Your task to perform on an android device: What is the recent news? Image 0: 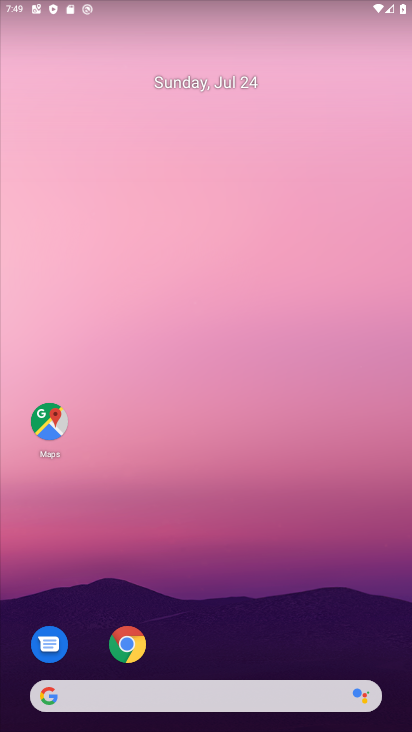
Step 0: drag from (8, 255) to (411, 504)
Your task to perform on an android device: What is the recent news? Image 1: 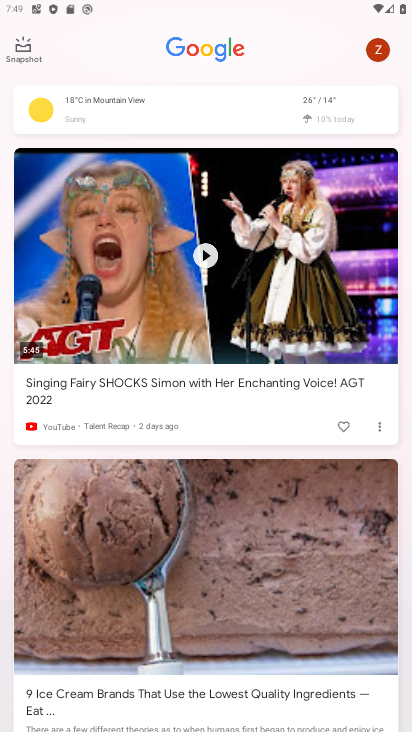
Step 1: task complete